Your task to perform on an android device: What is the recent news? Image 0: 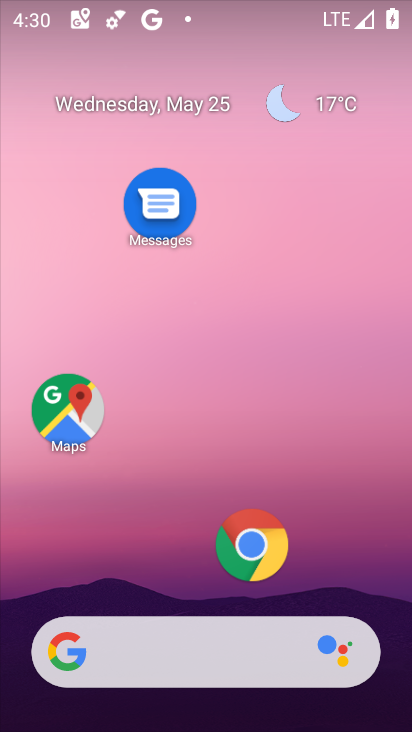
Step 0: click (241, 632)
Your task to perform on an android device: What is the recent news? Image 1: 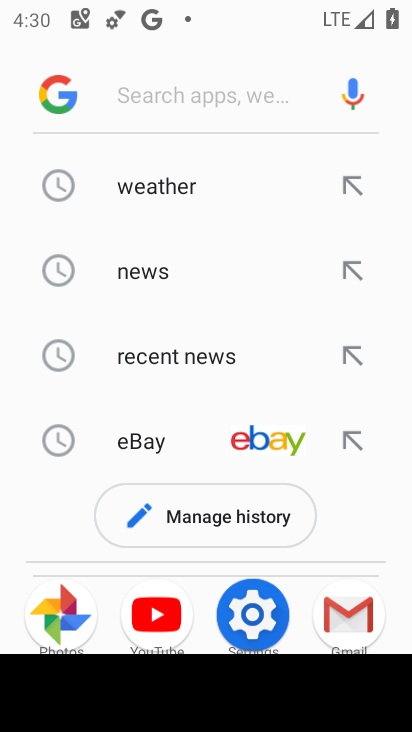
Step 1: click (165, 358)
Your task to perform on an android device: What is the recent news? Image 2: 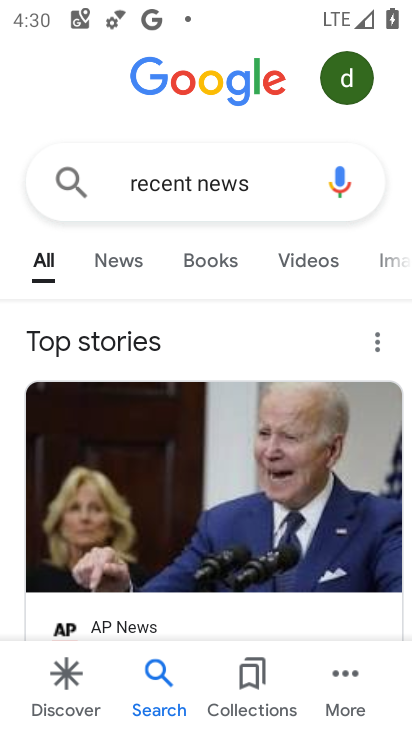
Step 2: click (136, 250)
Your task to perform on an android device: What is the recent news? Image 3: 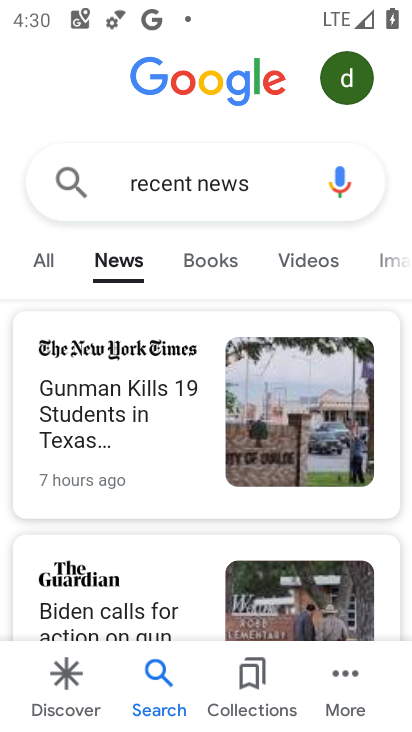
Step 3: task complete